Your task to perform on an android device: What's the weather? Image 0: 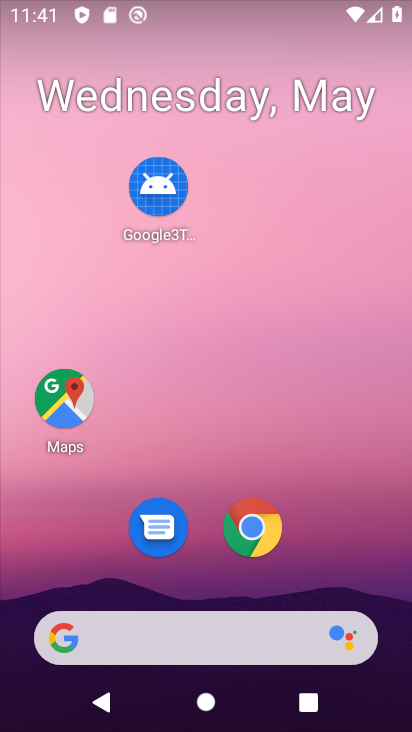
Step 0: press home button
Your task to perform on an android device: What's the weather? Image 1: 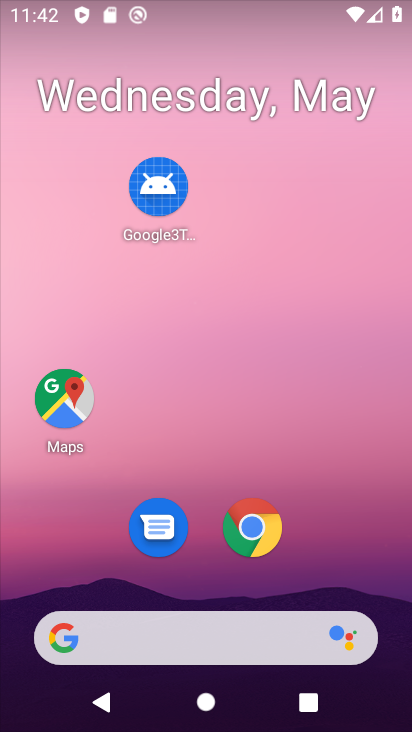
Step 1: drag from (19, 290) to (400, 291)
Your task to perform on an android device: What's the weather? Image 2: 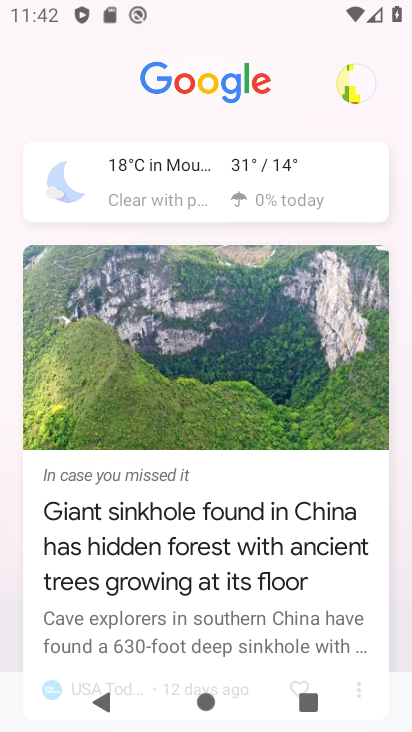
Step 2: click (256, 161)
Your task to perform on an android device: What's the weather? Image 3: 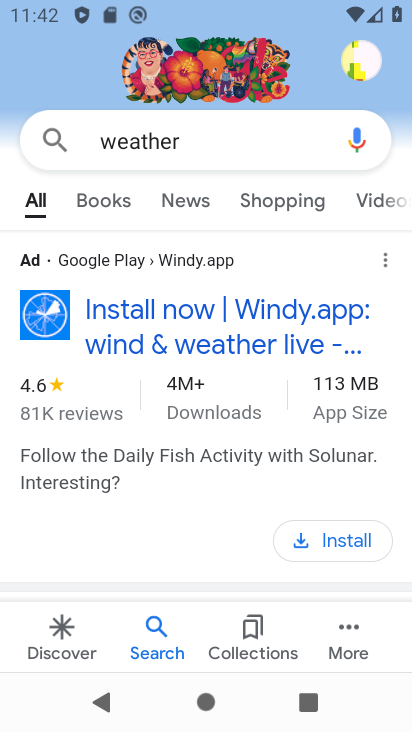
Step 3: task complete